Your task to perform on an android device: turn off wifi Image 0: 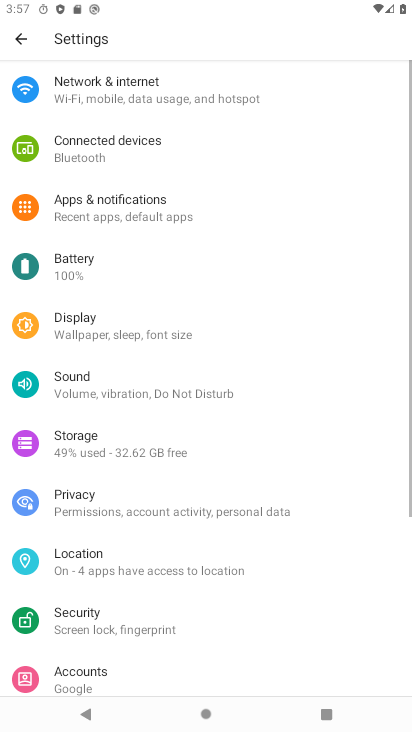
Step 0: drag from (212, 100) to (183, 641)
Your task to perform on an android device: turn off wifi Image 1: 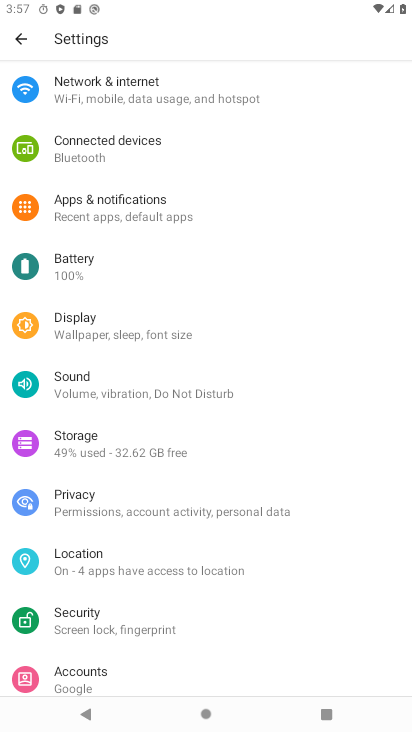
Step 1: click (186, 94)
Your task to perform on an android device: turn off wifi Image 2: 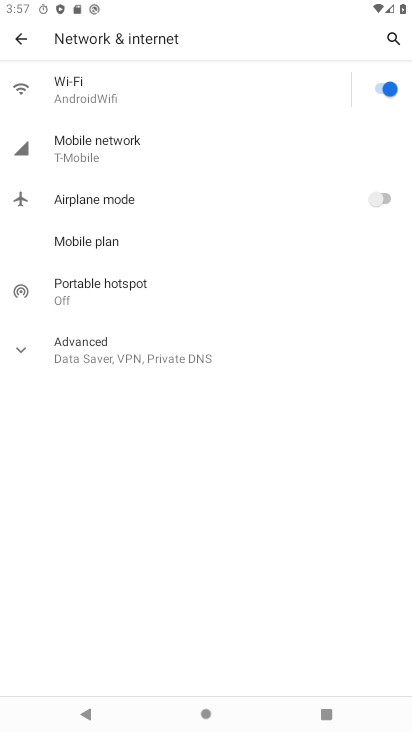
Step 2: click (386, 93)
Your task to perform on an android device: turn off wifi Image 3: 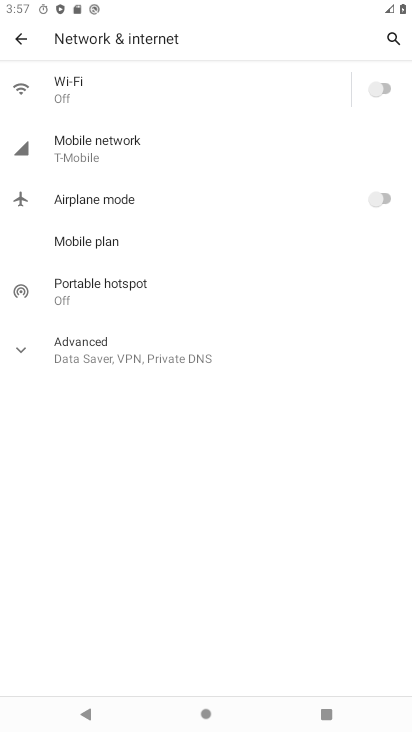
Step 3: task complete